Your task to perform on an android device: Open sound settings Image 0: 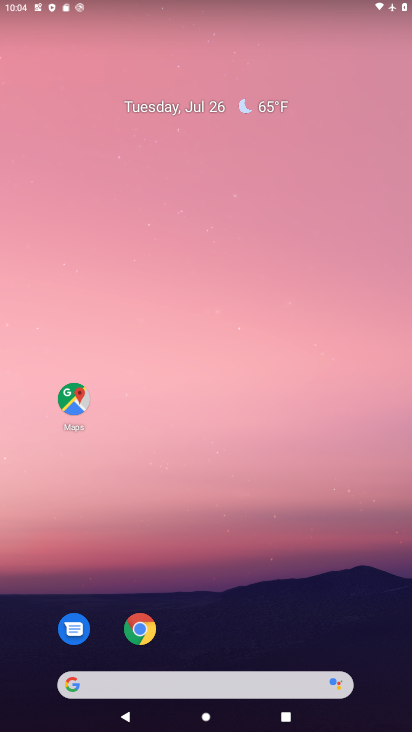
Step 0: drag from (309, 569) to (304, 51)
Your task to perform on an android device: Open sound settings Image 1: 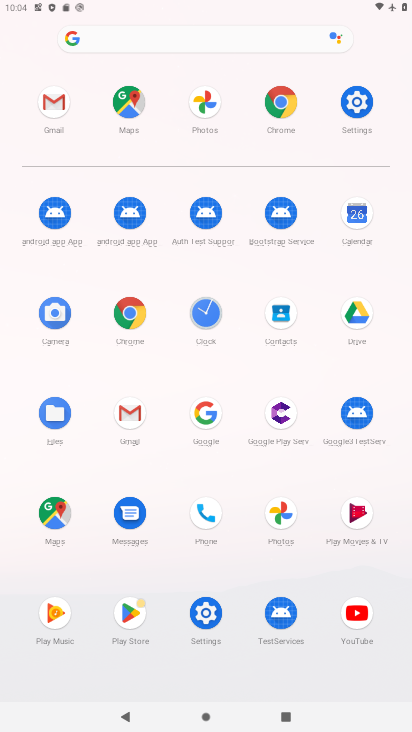
Step 1: click (380, 114)
Your task to perform on an android device: Open sound settings Image 2: 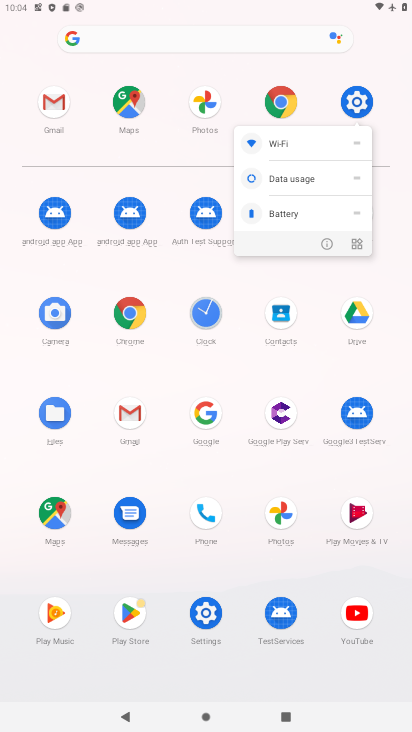
Step 2: click (361, 99)
Your task to perform on an android device: Open sound settings Image 3: 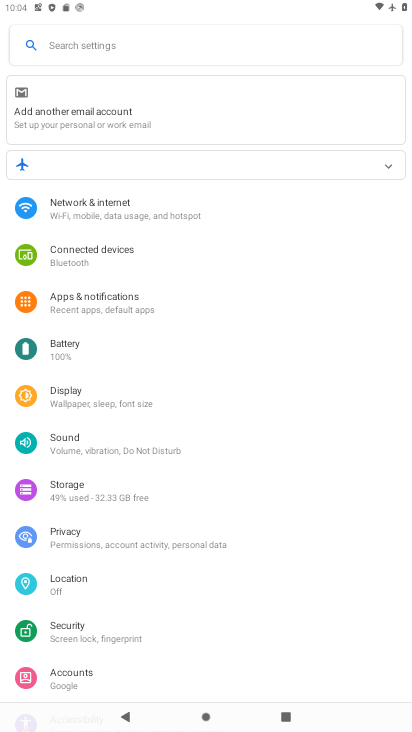
Step 3: click (101, 442)
Your task to perform on an android device: Open sound settings Image 4: 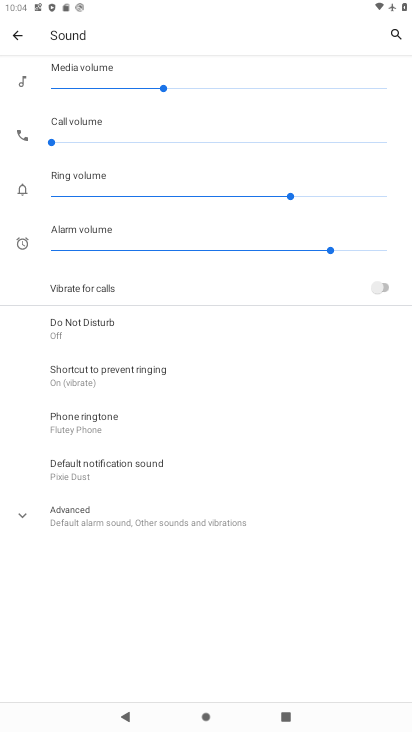
Step 4: task complete